Your task to perform on an android device: Open the phone app and click the voicemail tab. Image 0: 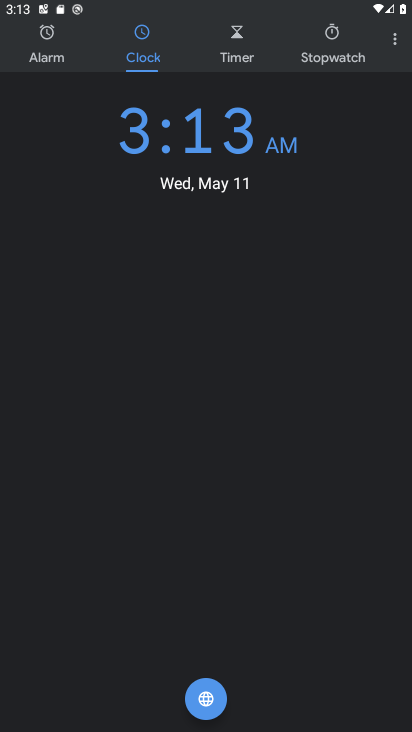
Step 0: press home button
Your task to perform on an android device: Open the phone app and click the voicemail tab. Image 1: 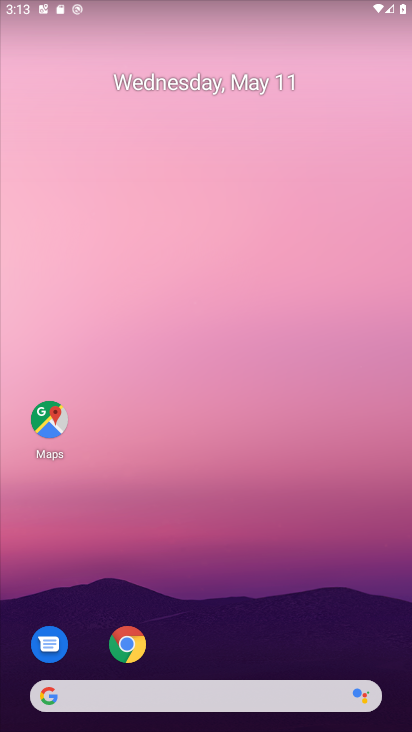
Step 1: drag from (214, 682) to (131, 20)
Your task to perform on an android device: Open the phone app and click the voicemail tab. Image 2: 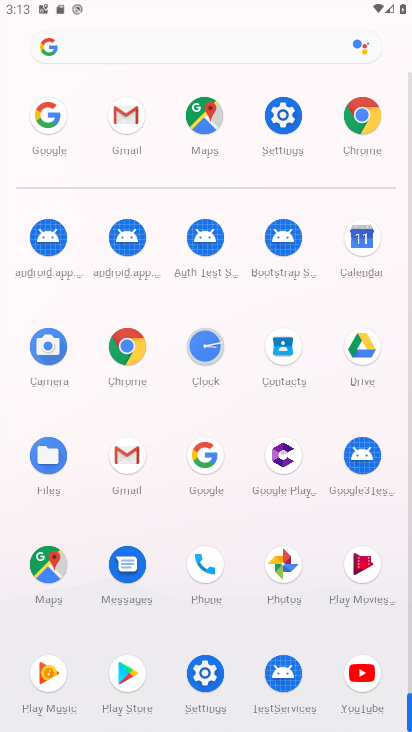
Step 2: click (201, 572)
Your task to perform on an android device: Open the phone app and click the voicemail tab. Image 3: 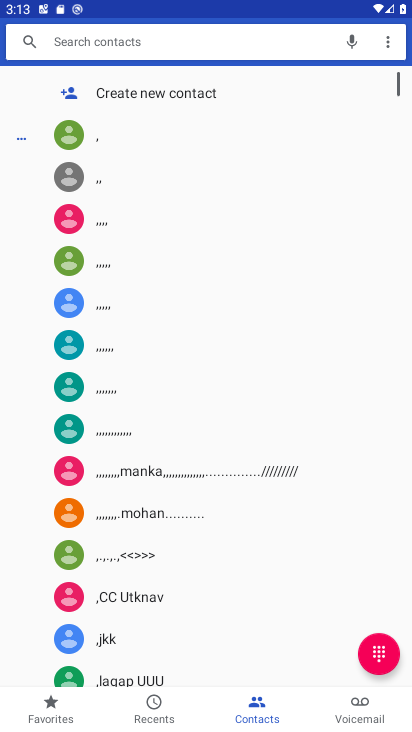
Step 3: click (342, 700)
Your task to perform on an android device: Open the phone app and click the voicemail tab. Image 4: 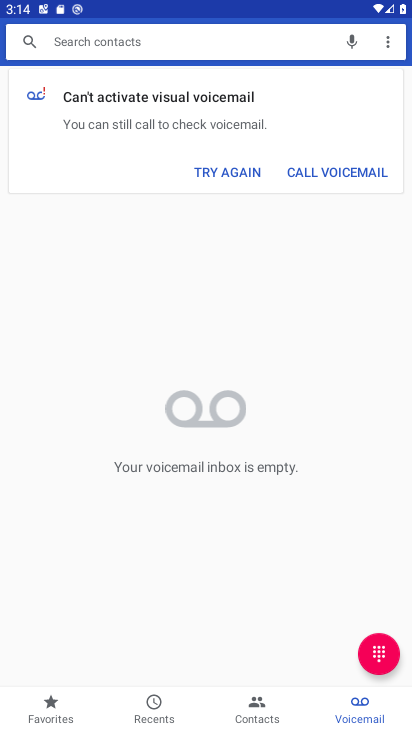
Step 4: task complete